Your task to perform on an android device: Do I have any events today? Image 0: 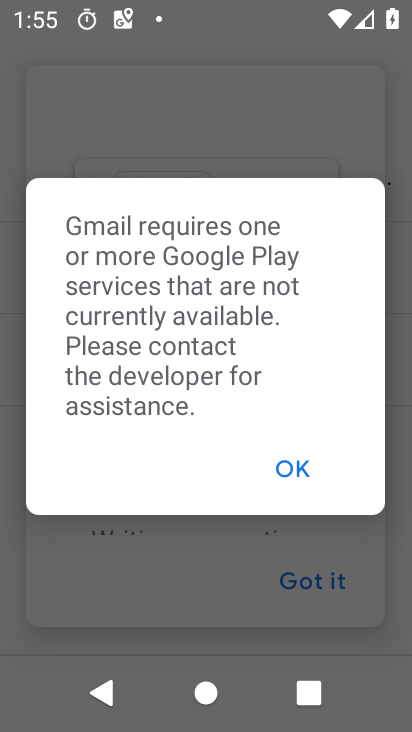
Step 0: press home button
Your task to perform on an android device: Do I have any events today? Image 1: 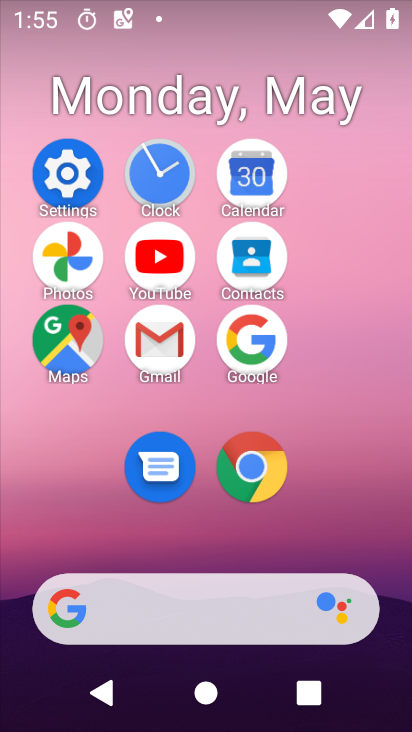
Step 1: click (243, 175)
Your task to perform on an android device: Do I have any events today? Image 2: 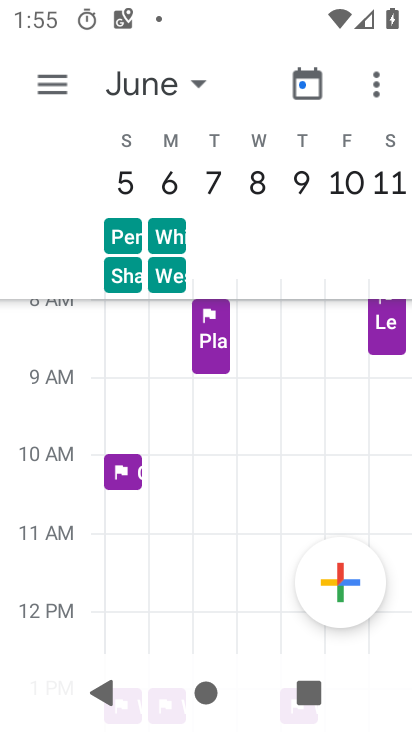
Step 2: drag from (125, 170) to (404, 198)
Your task to perform on an android device: Do I have any events today? Image 3: 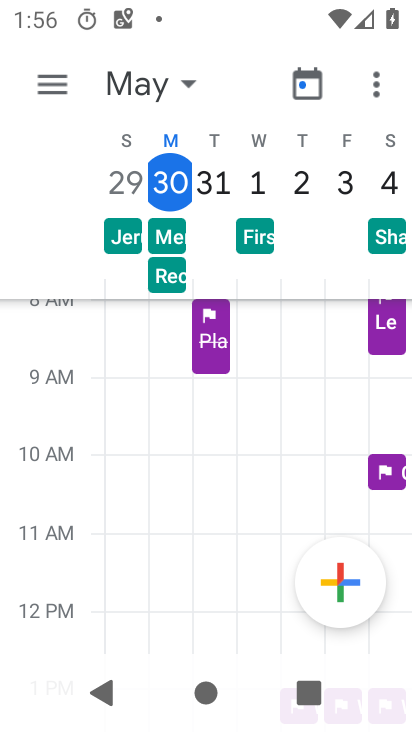
Step 3: click (178, 191)
Your task to perform on an android device: Do I have any events today? Image 4: 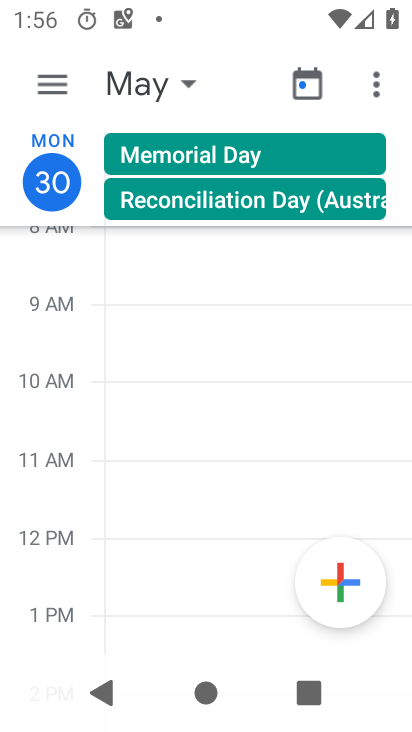
Step 4: task complete